Your task to perform on an android device: turn on priority inbox in the gmail app Image 0: 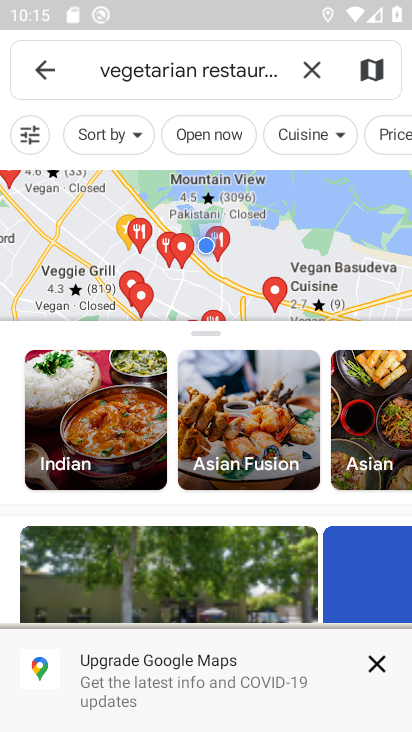
Step 0: press home button
Your task to perform on an android device: turn on priority inbox in the gmail app Image 1: 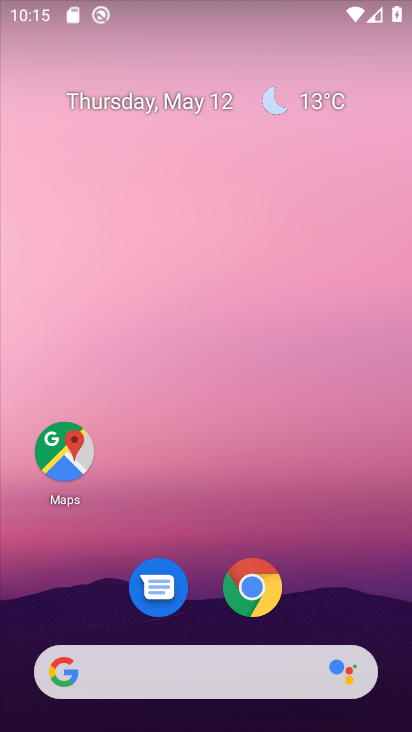
Step 1: drag from (192, 442) to (269, 38)
Your task to perform on an android device: turn on priority inbox in the gmail app Image 2: 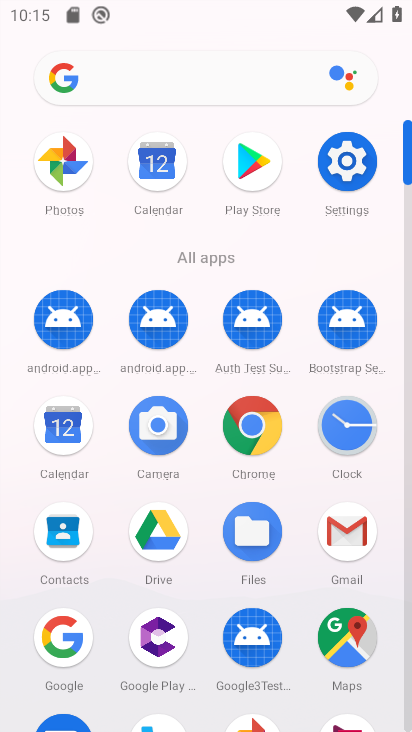
Step 2: click (358, 543)
Your task to perform on an android device: turn on priority inbox in the gmail app Image 3: 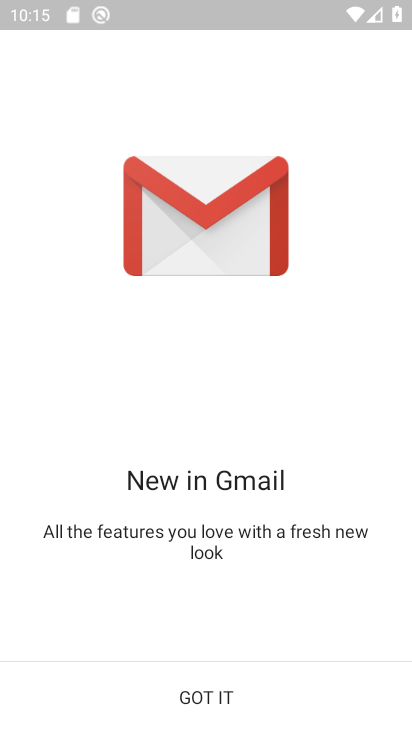
Step 3: click (177, 699)
Your task to perform on an android device: turn on priority inbox in the gmail app Image 4: 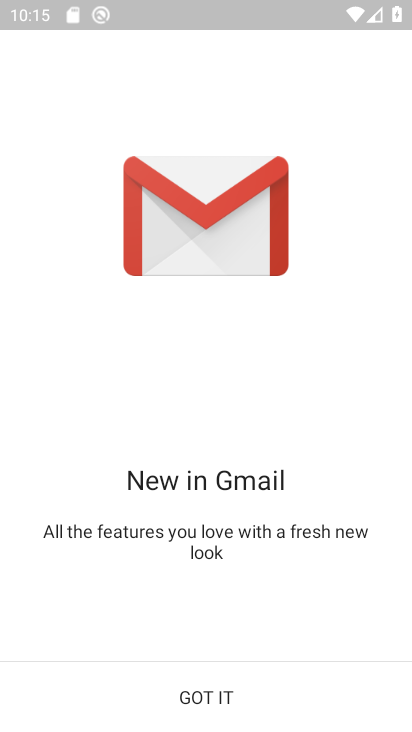
Step 4: click (177, 699)
Your task to perform on an android device: turn on priority inbox in the gmail app Image 5: 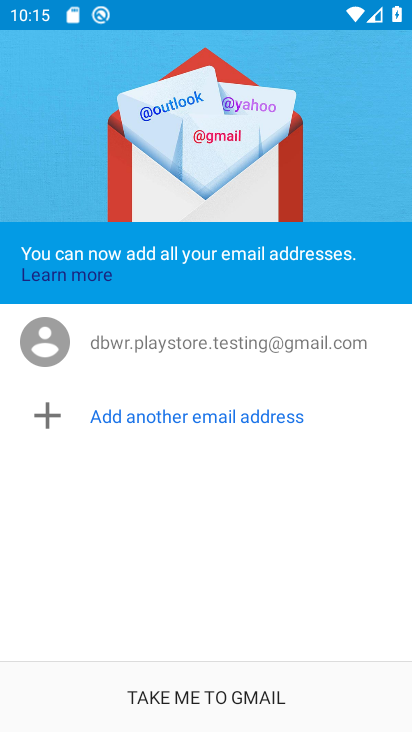
Step 5: click (177, 699)
Your task to perform on an android device: turn on priority inbox in the gmail app Image 6: 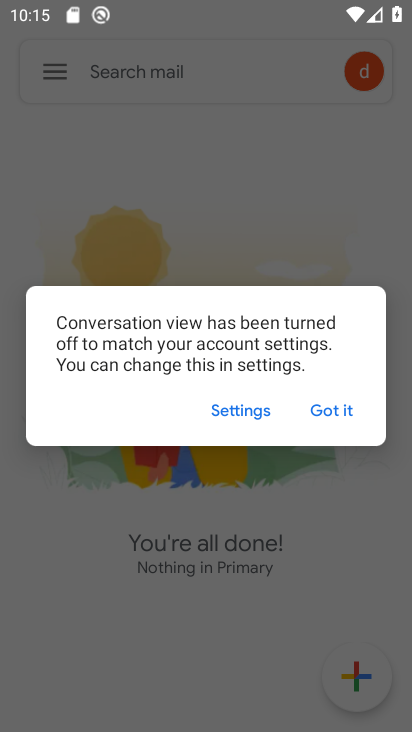
Step 6: click (333, 403)
Your task to perform on an android device: turn on priority inbox in the gmail app Image 7: 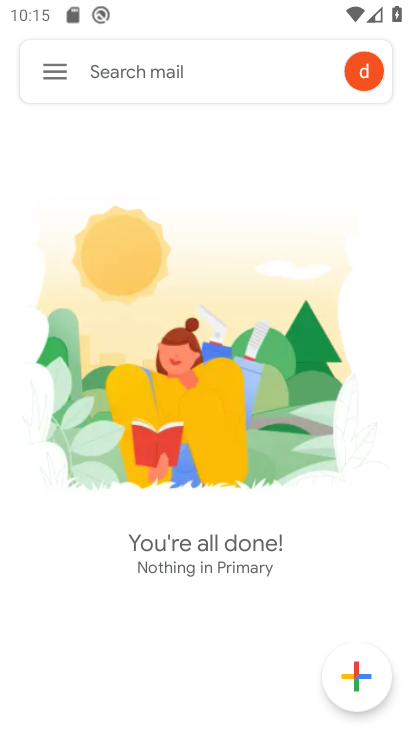
Step 7: click (42, 67)
Your task to perform on an android device: turn on priority inbox in the gmail app Image 8: 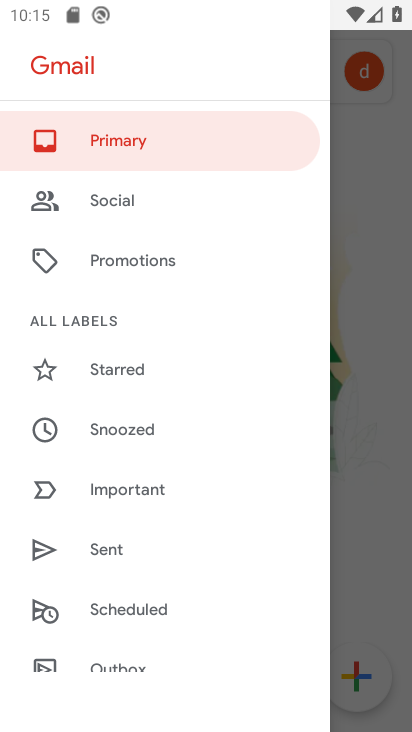
Step 8: drag from (132, 404) to (154, 89)
Your task to perform on an android device: turn on priority inbox in the gmail app Image 9: 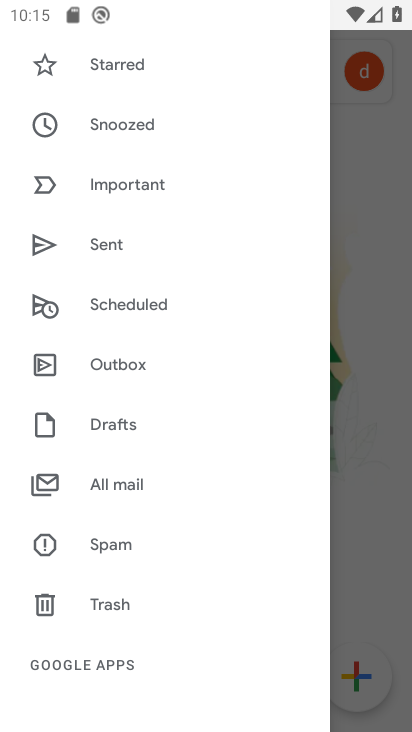
Step 9: drag from (150, 555) to (181, 172)
Your task to perform on an android device: turn on priority inbox in the gmail app Image 10: 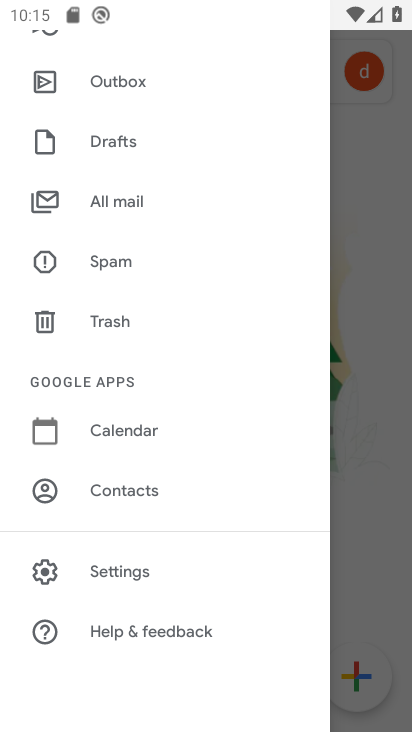
Step 10: click (126, 571)
Your task to perform on an android device: turn on priority inbox in the gmail app Image 11: 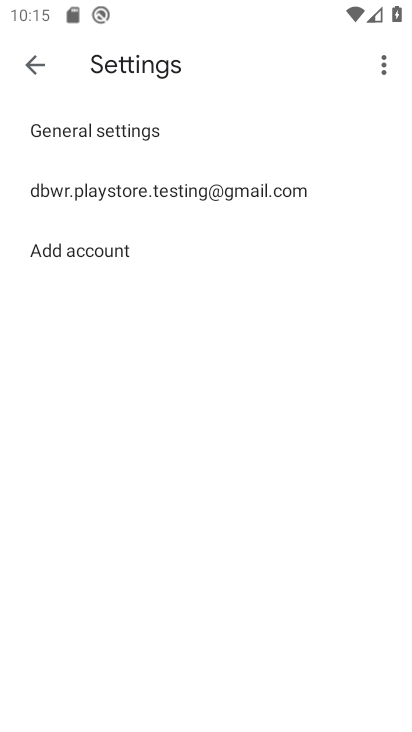
Step 11: click (179, 190)
Your task to perform on an android device: turn on priority inbox in the gmail app Image 12: 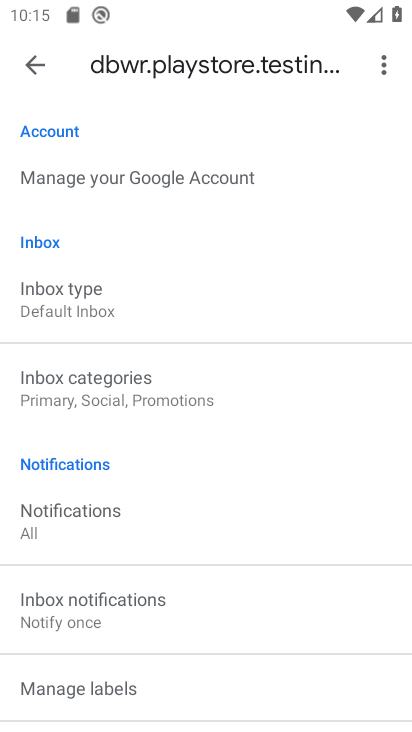
Step 12: click (123, 292)
Your task to perform on an android device: turn on priority inbox in the gmail app Image 13: 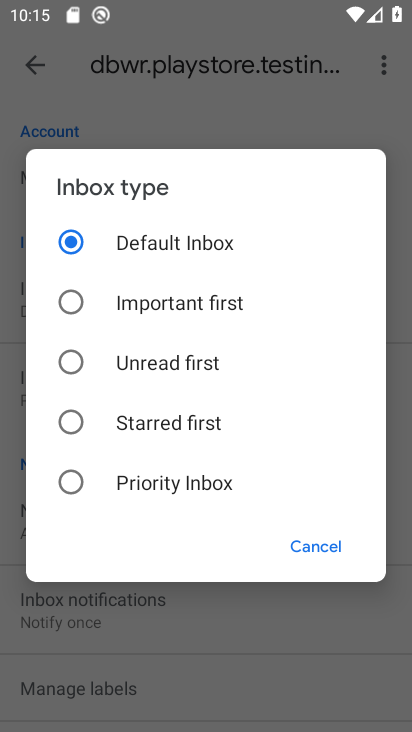
Step 13: click (82, 471)
Your task to perform on an android device: turn on priority inbox in the gmail app Image 14: 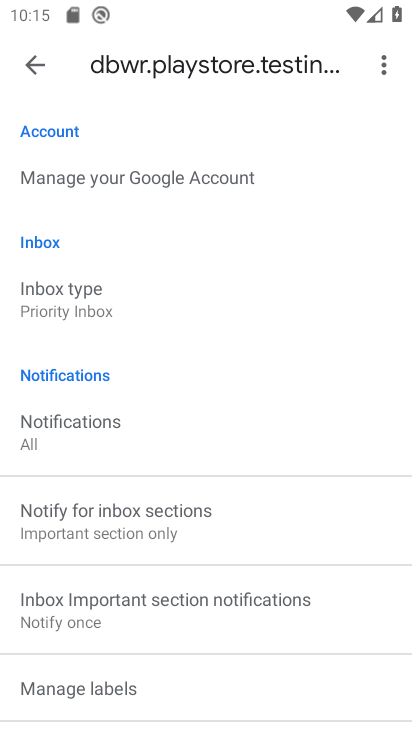
Step 14: task complete